Your task to perform on an android device: Open accessibility settings Image 0: 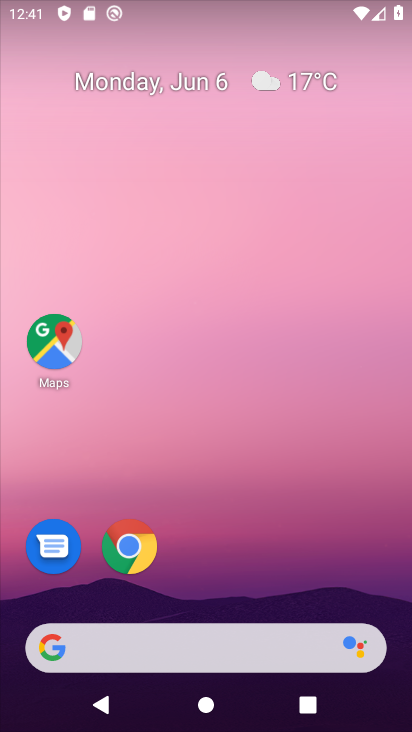
Step 0: drag from (340, 425) to (315, 268)
Your task to perform on an android device: Open accessibility settings Image 1: 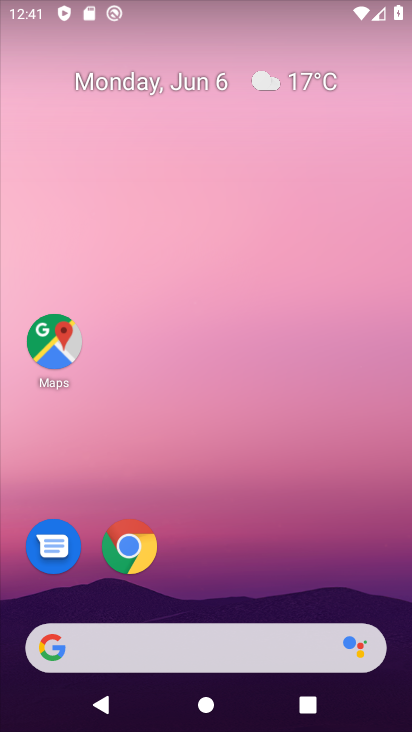
Step 1: drag from (387, 648) to (317, 216)
Your task to perform on an android device: Open accessibility settings Image 2: 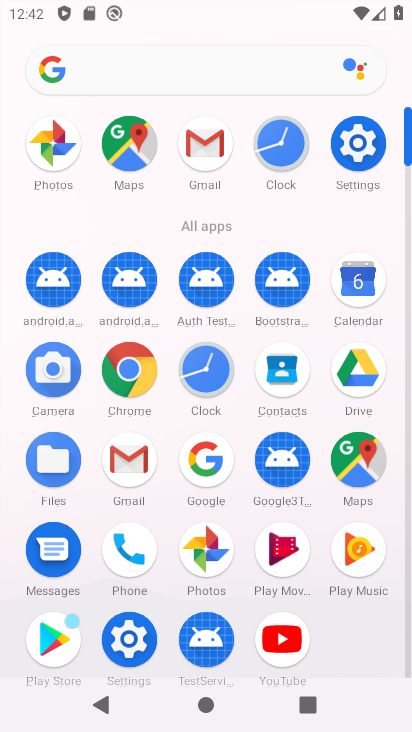
Step 2: click (355, 145)
Your task to perform on an android device: Open accessibility settings Image 3: 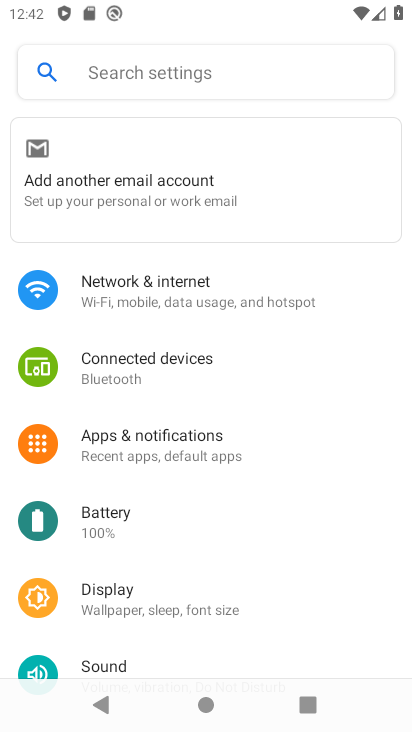
Step 3: click (278, 265)
Your task to perform on an android device: Open accessibility settings Image 4: 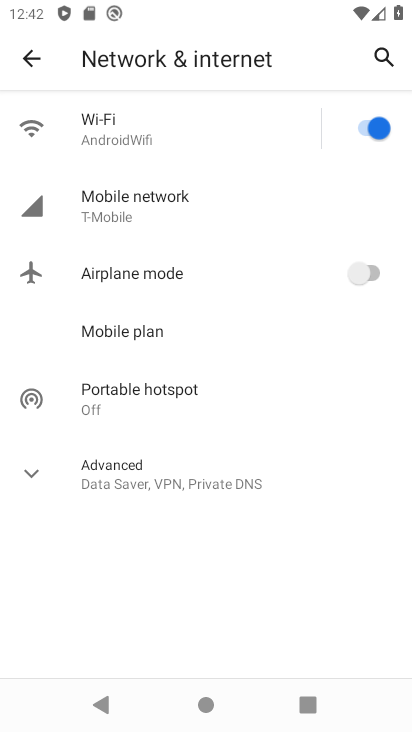
Step 4: drag from (280, 582) to (262, 254)
Your task to perform on an android device: Open accessibility settings Image 5: 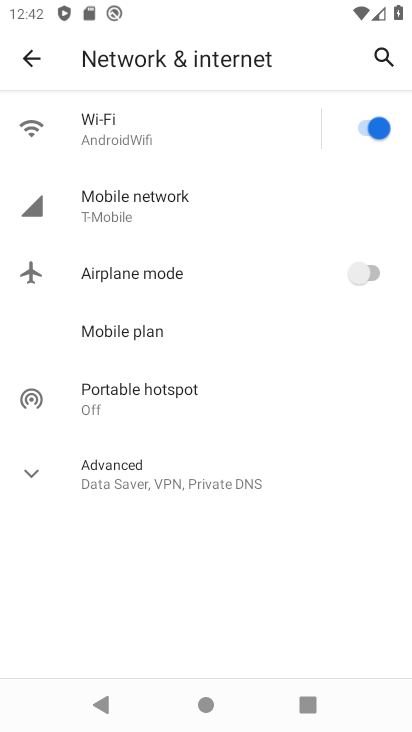
Step 5: click (44, 59)
Your task to perform on an android device: Open accessibility settings Image 6: 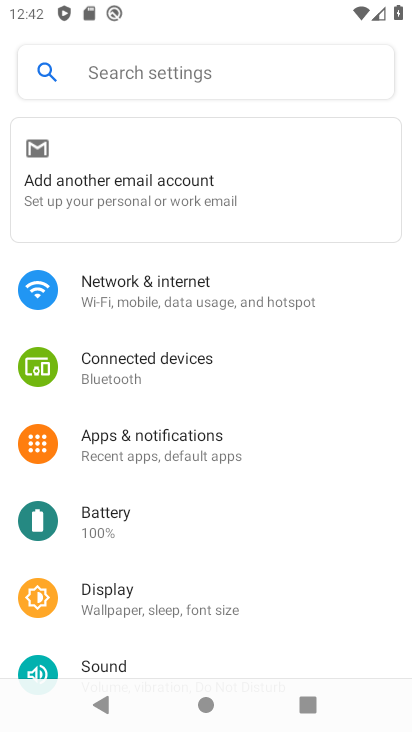
Step 6: drag from (333, 570) to (256, 246)
Your task to perform on an android device: Open accessibility settings Image 7: 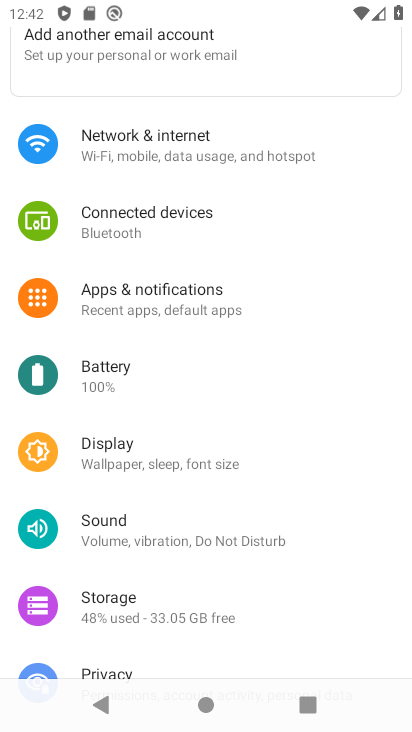
Step 7: drag from (308, 643) to (246, 298)
Your task to perform on an android device: Open accessibility settings Image 8: 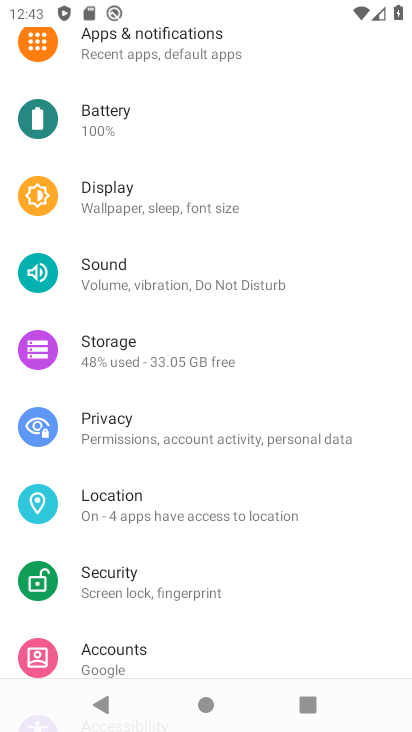
Step 8: click (229, 294)
Your task to perform on an android device: Open accessibility settings Image 9: 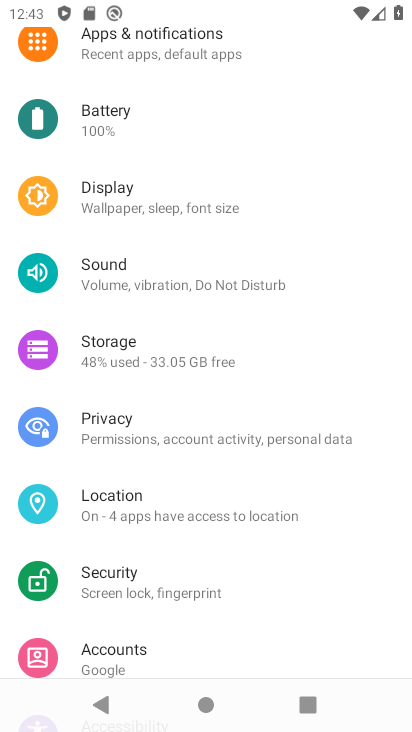
Step 9: drag from (314, 644) to (292, 207)
Your task to perform on an android device: Open accessibility settings Image 10: 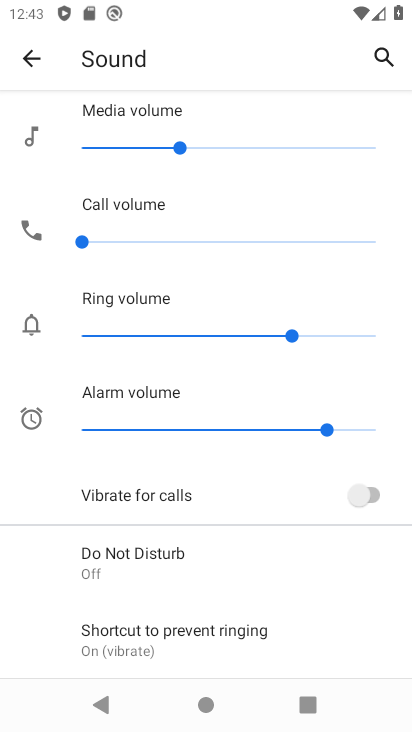
Step 10: click (35, 57)
Your task to perform on an android device: Open accessibility settings Image 11: 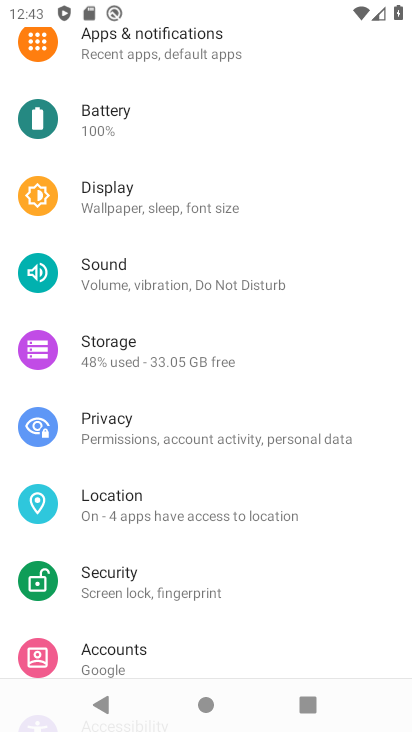
Step 11: drag from (352, 642) to (276, 175)
Your task to perform on an android device: Open accessibility settings Image 12: 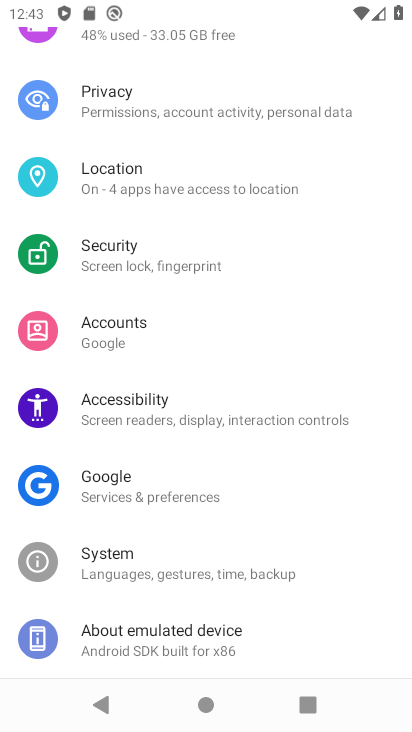
Step 12: click (114, 412)
Your task to perform on an android device: Open accessibility settings Image 13: 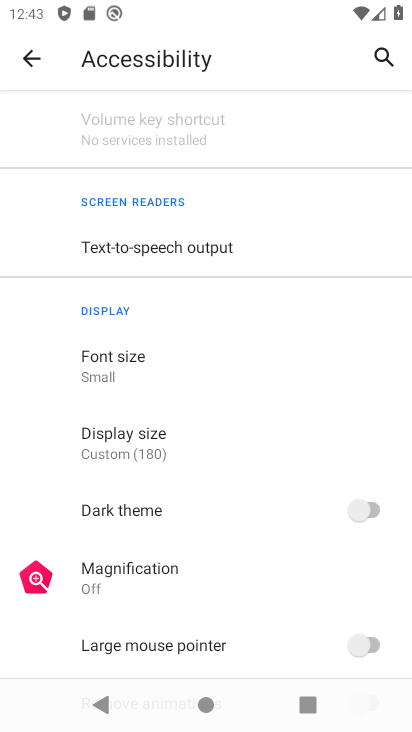
Step 13: task complete